Your task to perform on an android device: add a contact in the contacts app Image 0: 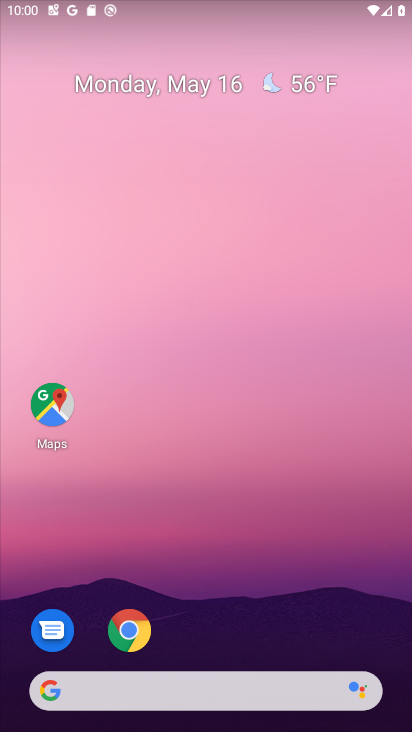
Step 0: drag from (224, 588) to (274, 27)
Your task to perform on an android device: add a contact in the contacts app Image 1: 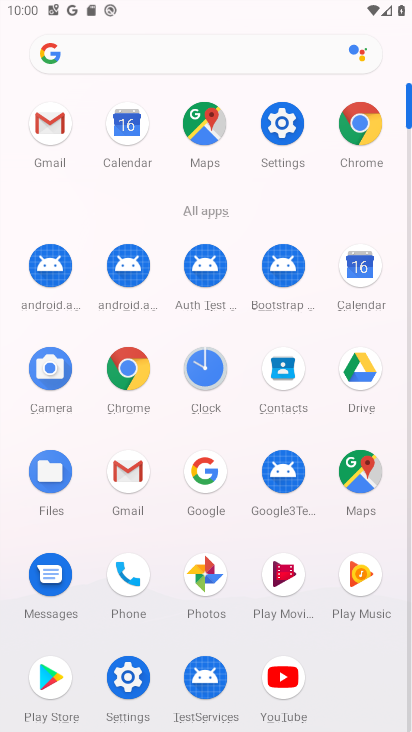
Step 1: click (283, 372)
Your task to perform on an android device: add a contact in the contacts app Image 2: 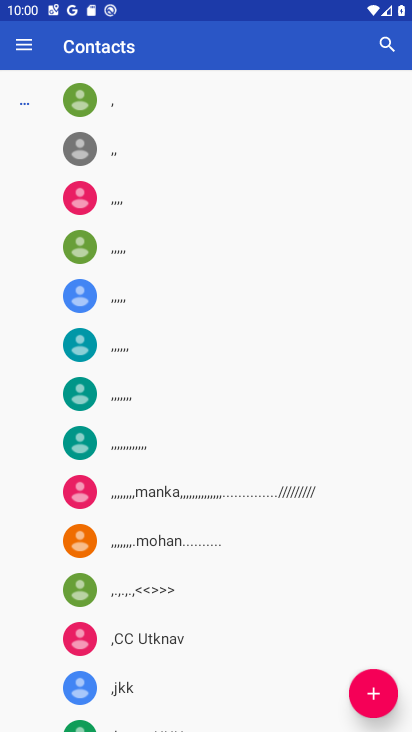
Step 2: click (371, 701)
Your task to perform on an android device: add a contact in the contacts app Image 3: 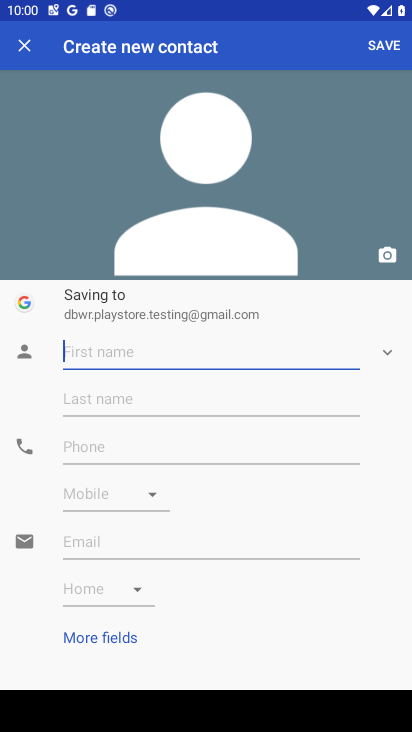
Step 3: type "Gyanvapi Mandir Temple"
Your task to perform on an android device: add a contact in the contacts app Image 4: 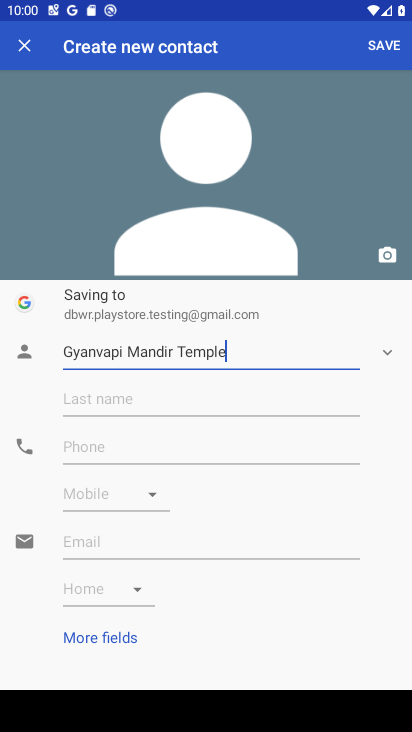
Step 4: click (202, 400)
Your task to perform on an android device: add a contact in the contacts app Image 5: 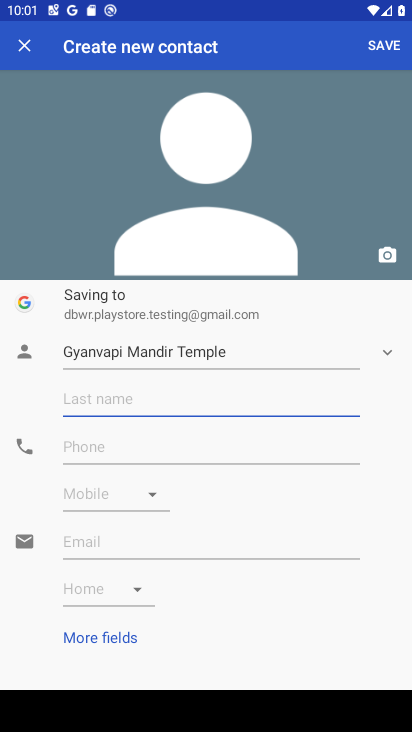
Step 5: type "Varanasi Bharatvarsh"
Your task to perform on an android device: add a contact in the contacts app Image 6: 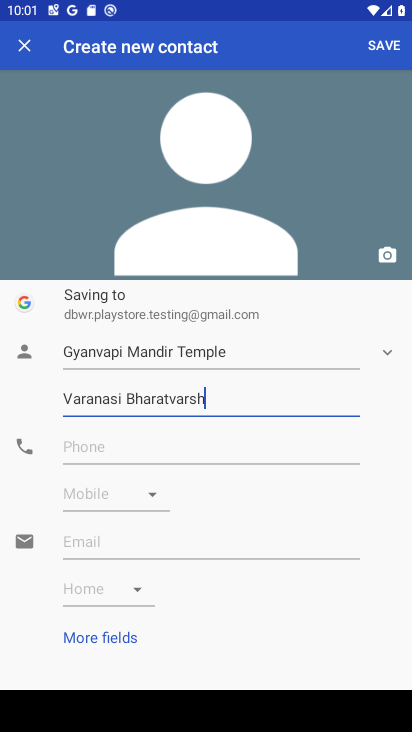
Step 6: click (297, 457)
Your task to perform on an android device: add a contact in the contacts app Image 7: 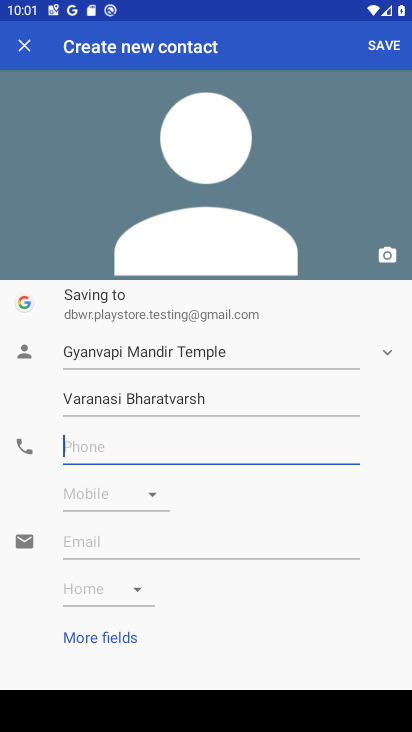
Step 7: type "0919977553311"
Your task to perform on an android device: add a contact in the contacts app Image 8: 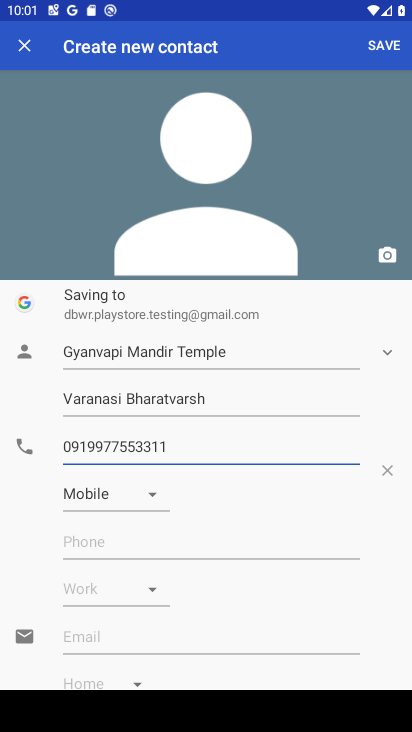
Step 8: click (397, 45)
Your task to perform on an android device: add a contact in the contacts app Image 9: 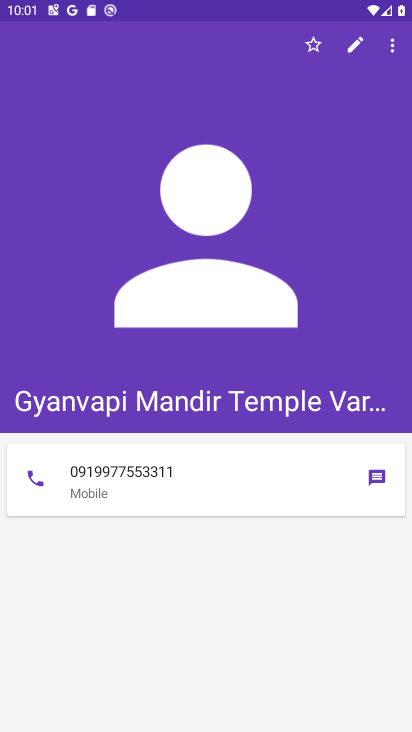
Step 9: task complete